Your task to perform on an android device: toggle translation in the chrome app Image 0: 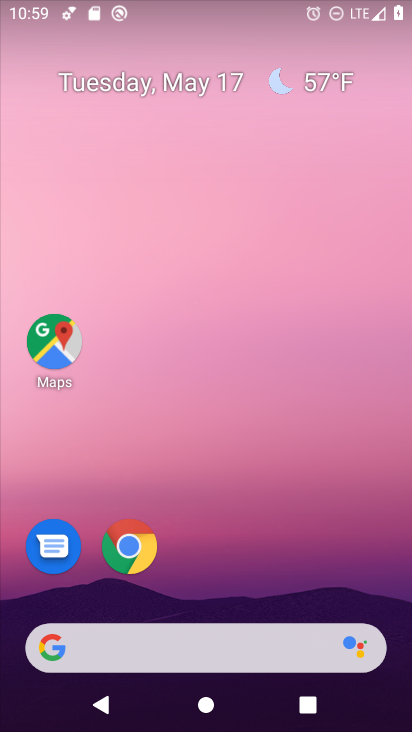
Step 0: click (141, 551)
Your task to perform on an android device: toggle translation in the chrome app Image 1: 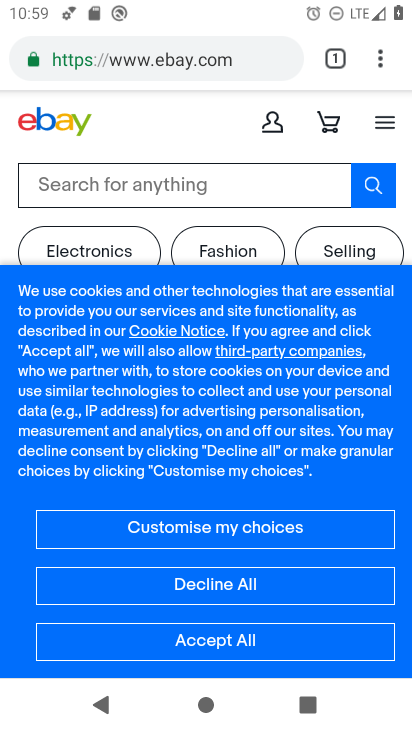
Step 1: click (383, 62)
Your task to perform on an android device: toggle translation in the chrome app Image 2: 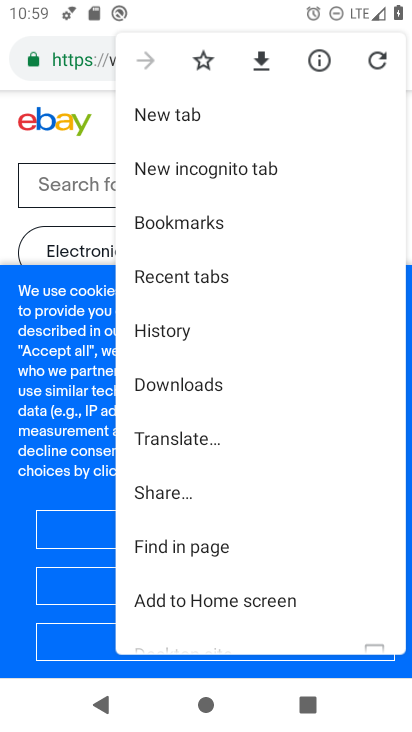
Step 2: drag from (267, 545) to (275, 249)
Your task to perform on an android device: toggle translation in the chrome app Image 3: 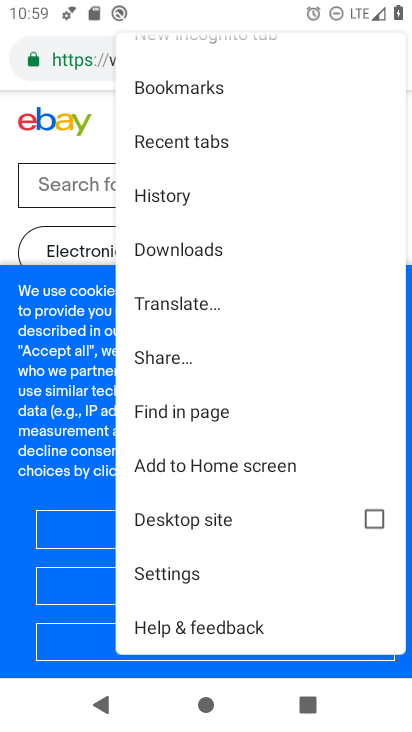
Step 3: click (168, 578)
Your task to perform on an android device: toggle translation in the chrome app Image 4: 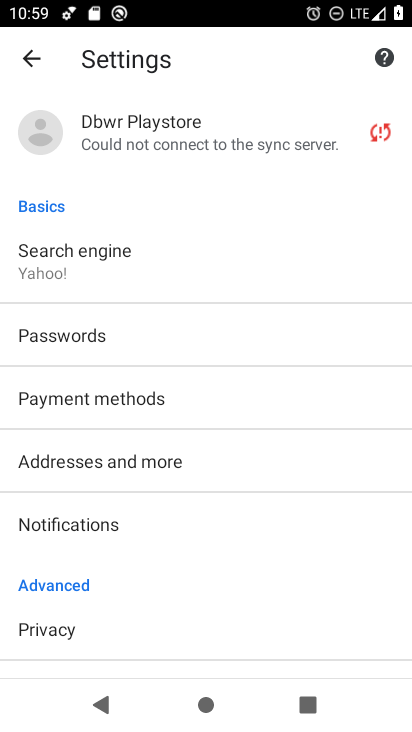
Step 4: drag from (164, 529) to (184, 238)
Your task to perform on an android device: toggle translation in the chrome app Image 5: 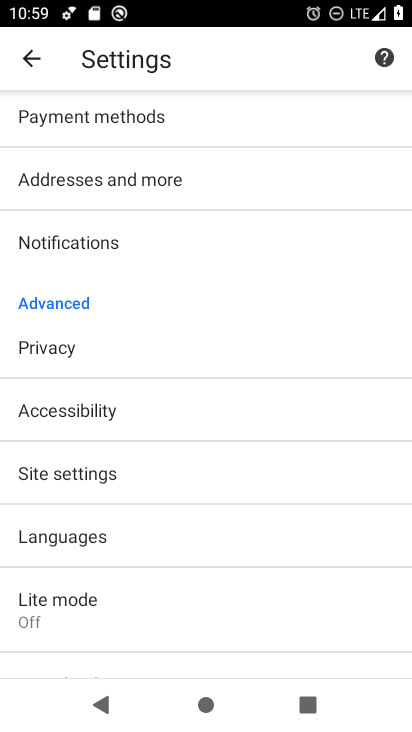
Step 5: click (99, 531)
Your task to perform on an android device: toggle translation in the chrome app Image 6: 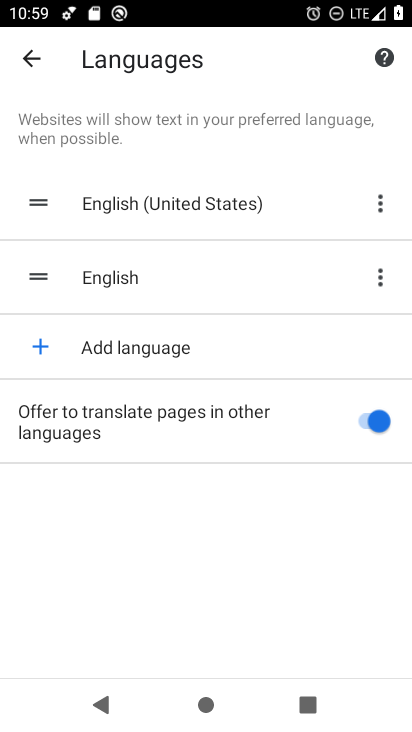
Step 6: click (384, 427)
Your task to perform on an android device: toggle translation in the chrome app Image 7: 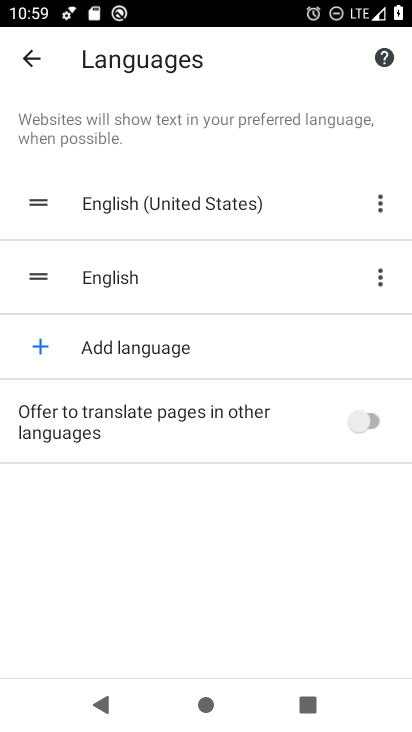
Step 7: task complete